Your task to perform on an android device: Open Amazon Image 0: 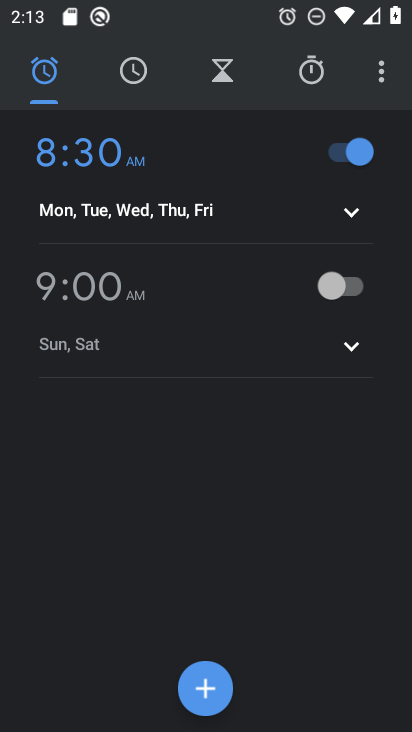
Step 0: press home button
Your task to perform on an android device: Open Amazon Image 1: 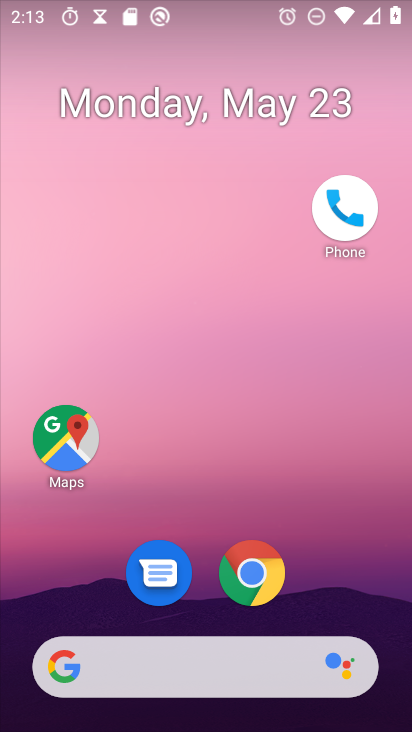
Step 1: click (250, 579)
Your task to perform on an android device: Open Amazon Image 2: 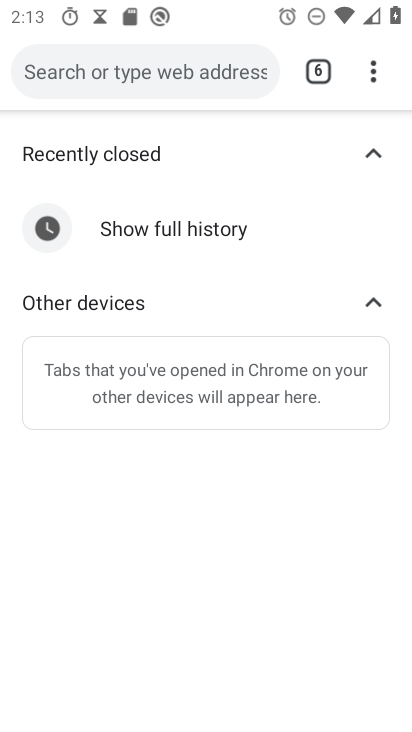
Step 2: drag from (372, 84) to (267, 147)
Your task to perform on an android device: Open Amazon Image 3: 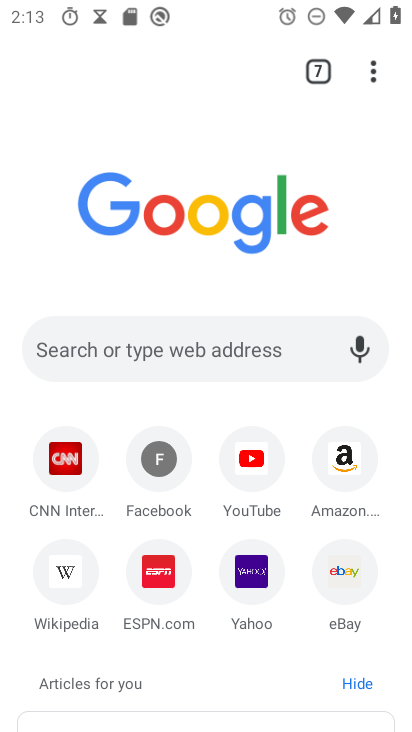
Step 3: click (342, 469)
Your task to perform on an android device: Open Amazon Image 4: 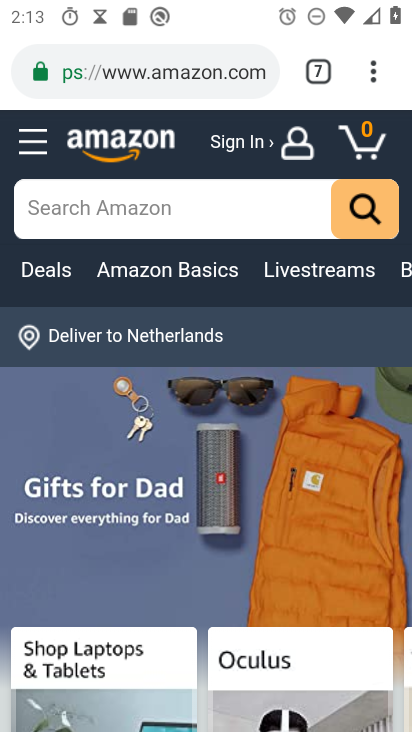
Step 4: task complete